Your task to perform on an android device: Do I have any events tomorrow? Image 0: 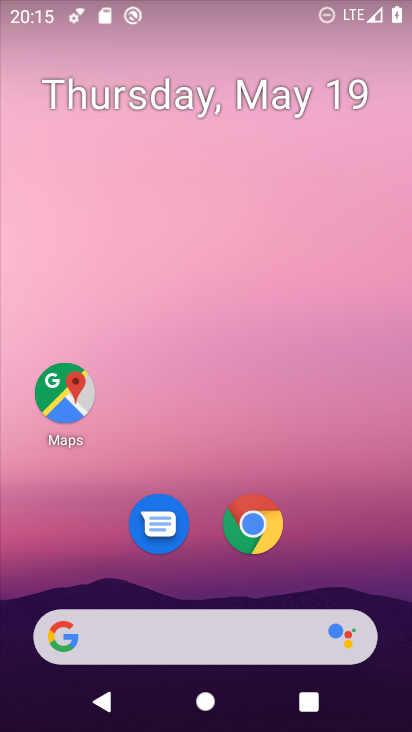
Step 0: click (263, 107)
Your task to perform on an android device: Do I have any events tomorrow? Image 1: 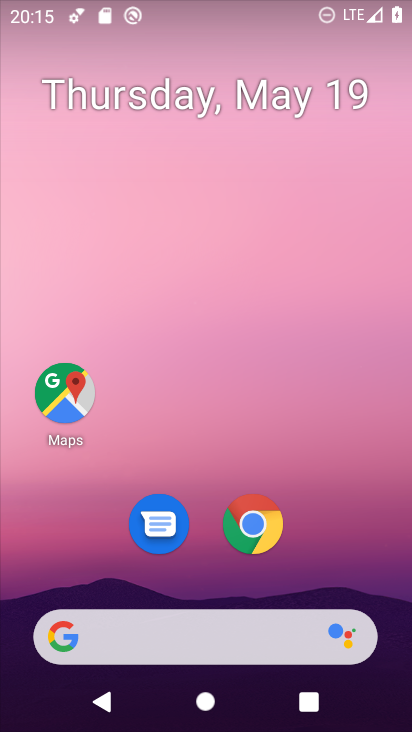
Step 1: drag from (199, 465) to (239, 1)
Your task to perform on an android device: Do I have any events tomorrow? Image 2: 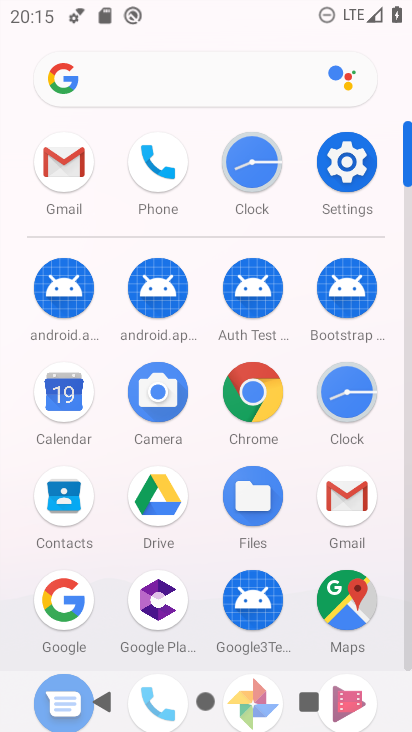
Step 2: click (53, 397)
Your task to perform on an android device: Do I have any events tomorrow? Image 3: 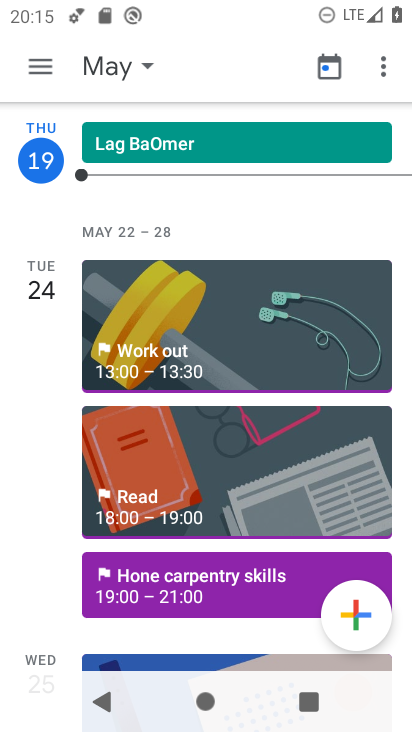
Step 3: click (145, 220)
Your task to perform on an android device: Do I have any events tomorrow? Image 4: 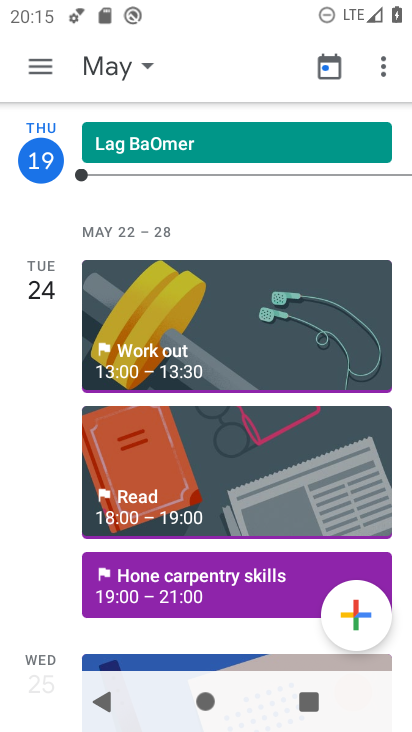
Step 4: click (140, 224)
Your task to perform on an android device: Do I have any events tomorrow? Image 5: 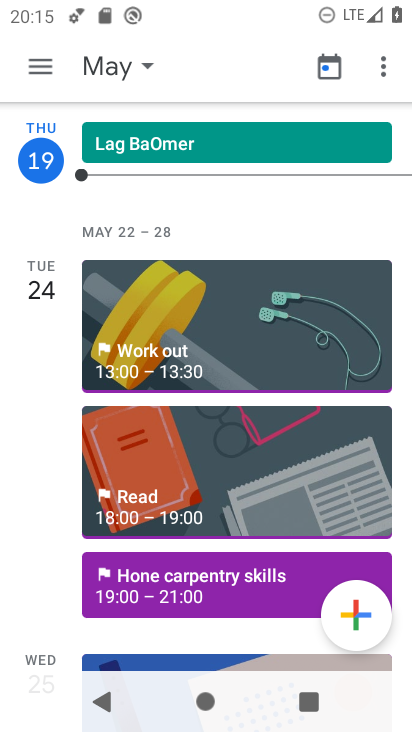
Step 5: click (112, 230)
Your task to perform on an android device: Do I have any events tomorrow? Image 6: 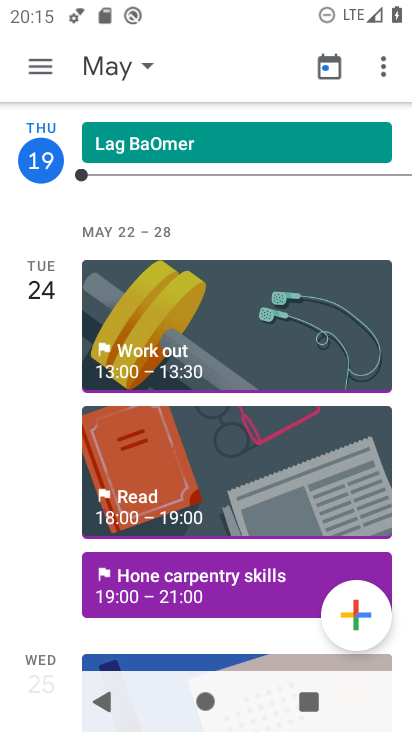
Step 6: click (47, 56)
Your task to perform on an android device: Do I have any events tomorrow? Image 7: 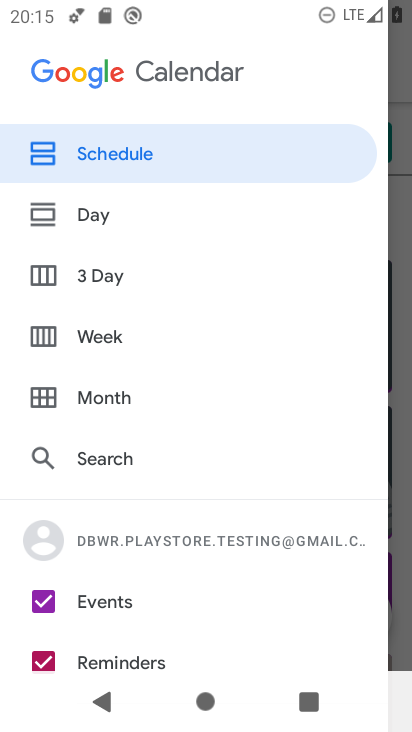
Step 7: click (40, 331)
Your task to perform on an android device: Do I have any events tomorrow? Image 8: 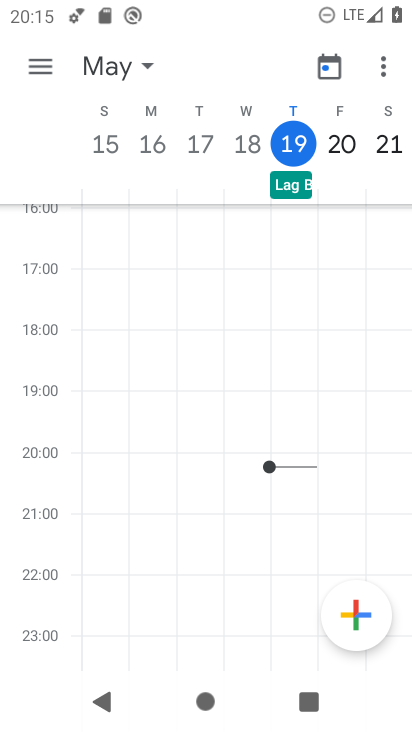
Step 8: task complete